Your task to perform on an android device: open chrome privacy settings Image 0: 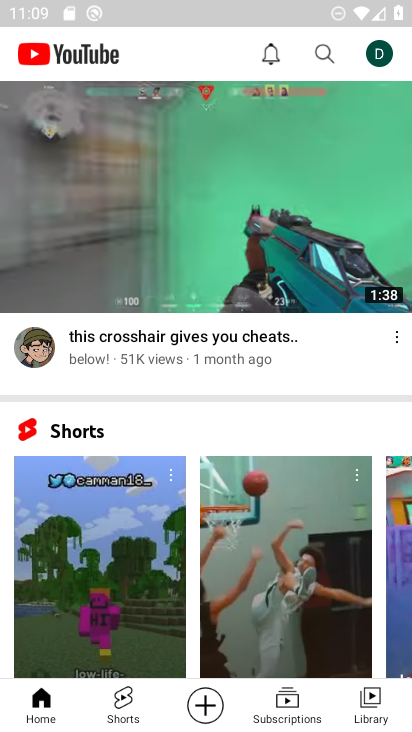
Step 0: press home button
Your task to perform on an android device: open chrome privacy settings Image 1: 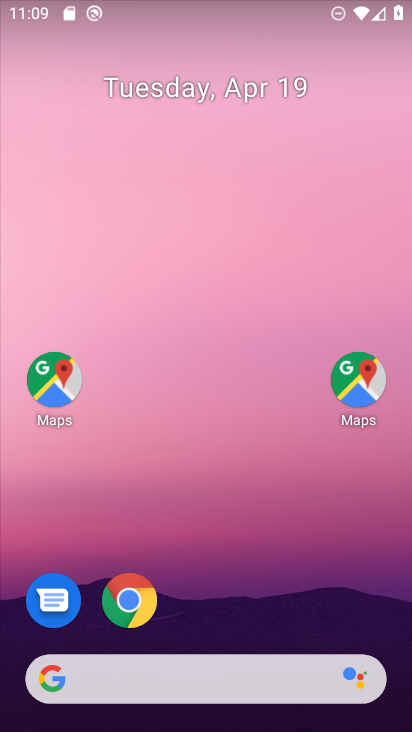
Step 1: drag from (290, 475) to (236, 115)
Your task to perform on an android device: open chrome privacy settings Image 2: 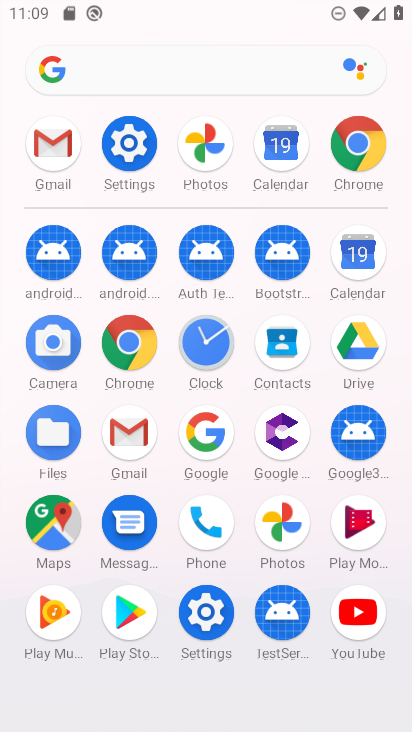
Step 2: click (150, 344)
Your task to perform on an android device: open chrome privacy settings Image 3: 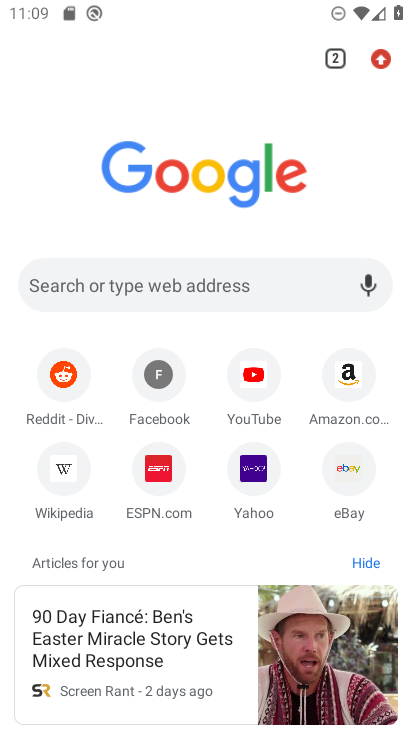
Step 3: click (375, 58)
Your task to perform on an android device: open chrome privacy settings Image 4: 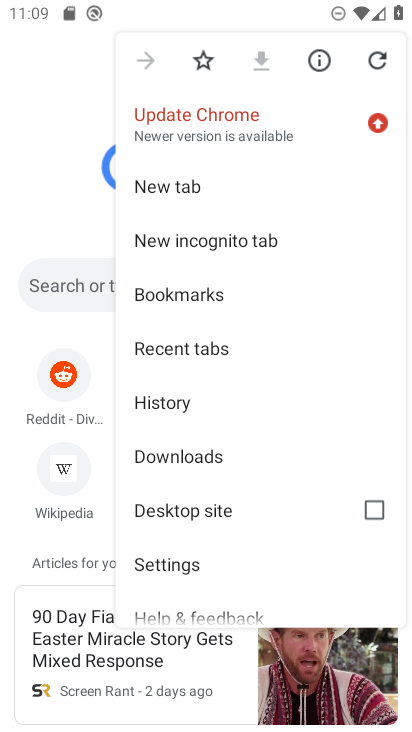
Step 4: drag from (288, 597) to (303, 188)
Your task to perform on an android device: open chrome privacy settings Image 5: 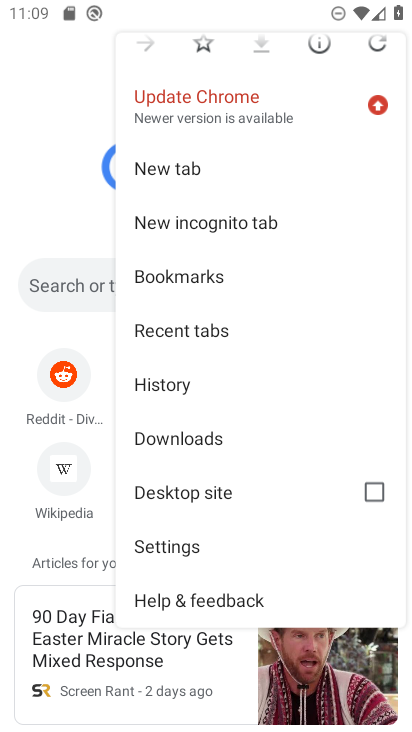
Step 5: click (205, 551)
Your task to perform on an android device: open chrome privacy settings Image 6: 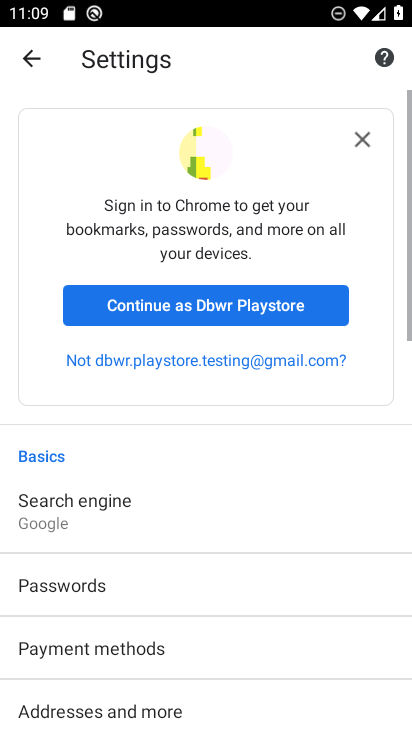
Step 6: drag from (195, 655) to (171, 120)
Your task to perform on an android device: open chrome privacy settings Image 7: 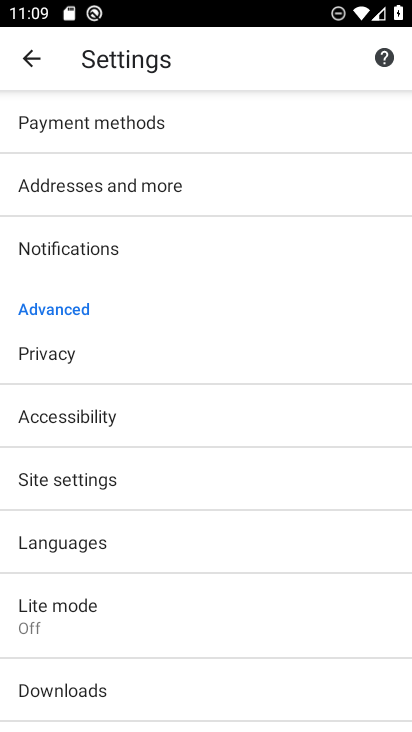
Step 7: drag from (153, 706) to (157, 602)
Your task to perform on an android device: open chrome privacy settings Image 8: 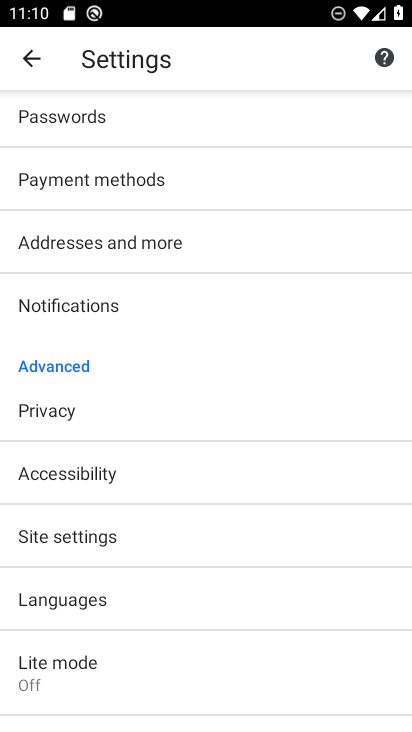
Step 8: click (91, 417)
Your task to perform on an android device: open chrome privacy settings Image 9: 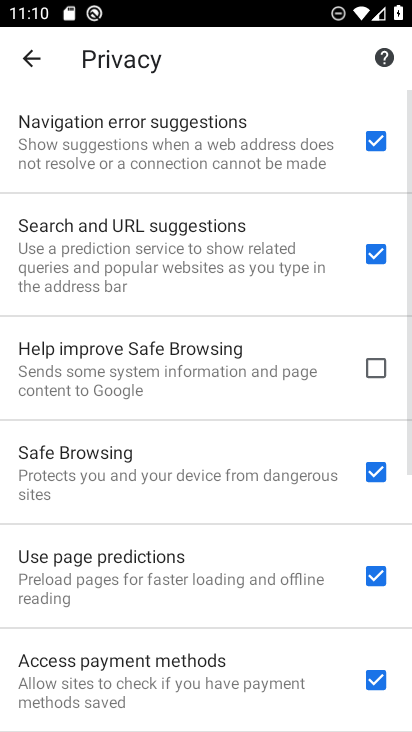
Step 9: task complete